Your task to perform on an android device: turn on airplane mode Image 0: 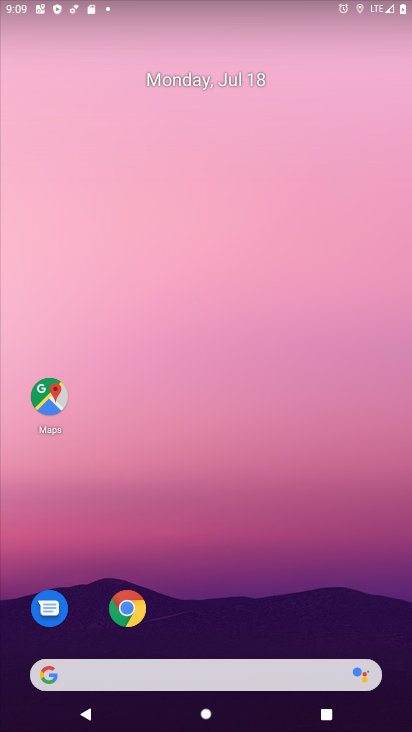
Step 0: drag from (33, 695) to (278, 116)
Your task to perform on an android device: turn on airplane mode Image 1: 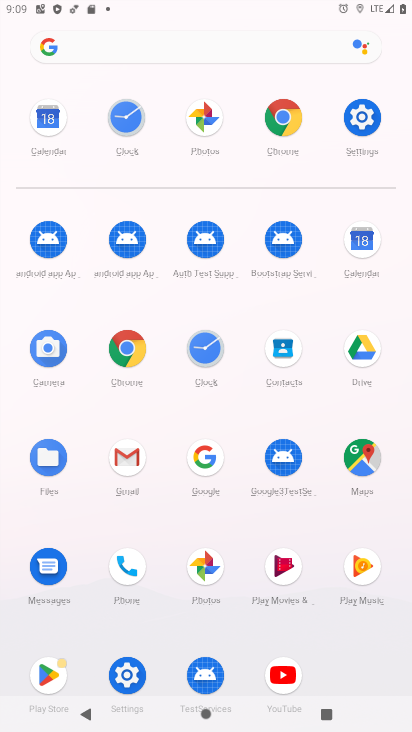
Step 1: click (138, 682)
Your task to perform on an android device: turn on airplane mode Image 2: 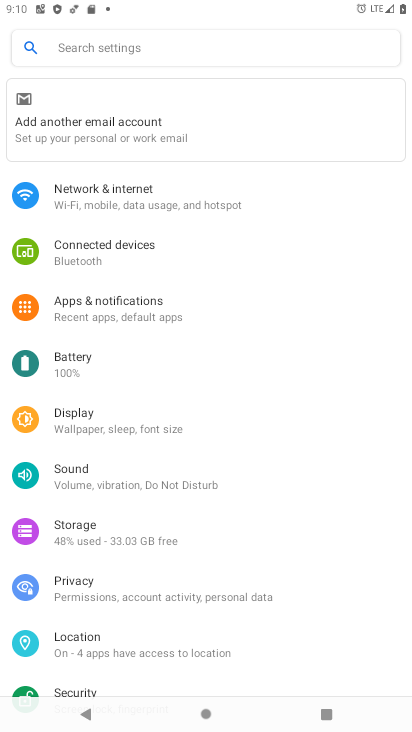
Step 2: click (100, 201)
Your task to perform on an android device: turn on airplane mode Image 3: 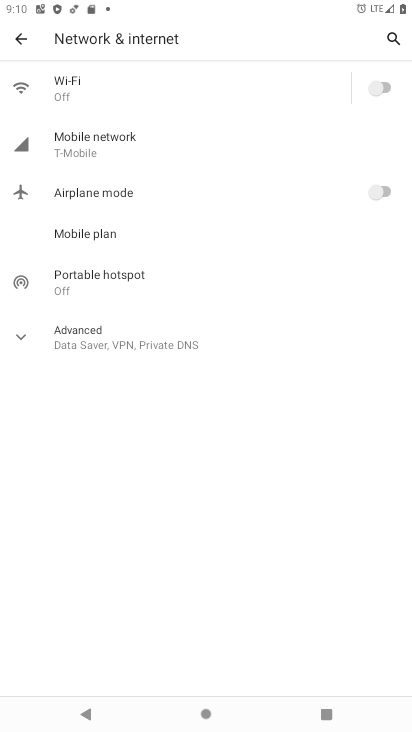
Step 3: click (375, 89)
Your task to perform on an android device: turn on airplane mode Image 4: 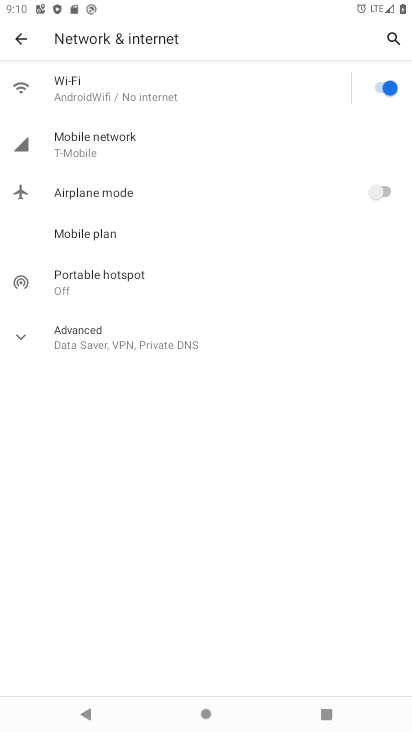
Step 4: task complete